Your task to perform on an android device: allow cookies in the chrome app Image 0: 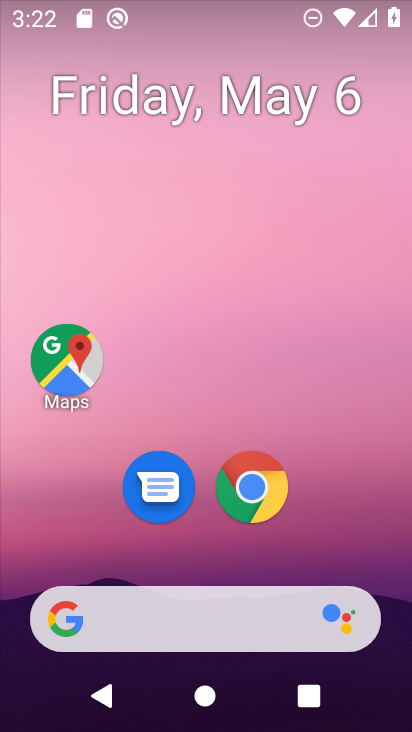
Step 0: click (249, 470)
Your task to perform on an android device: allow cookies in the chrome app Image 1: 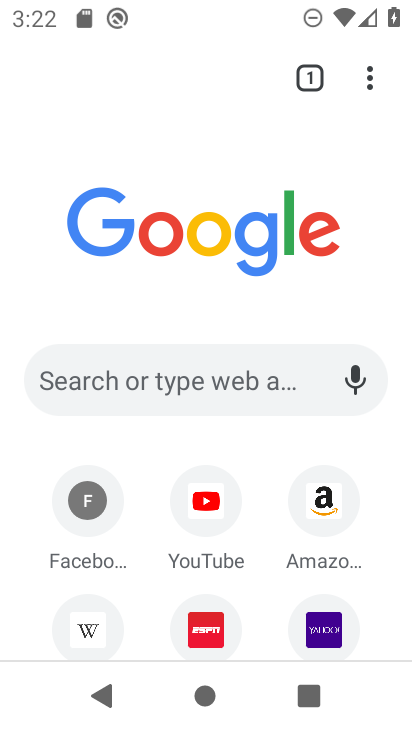
Step 1: click (367, 79)
Your task to perform on an android device: allow cookies in the chrome app Image 2: 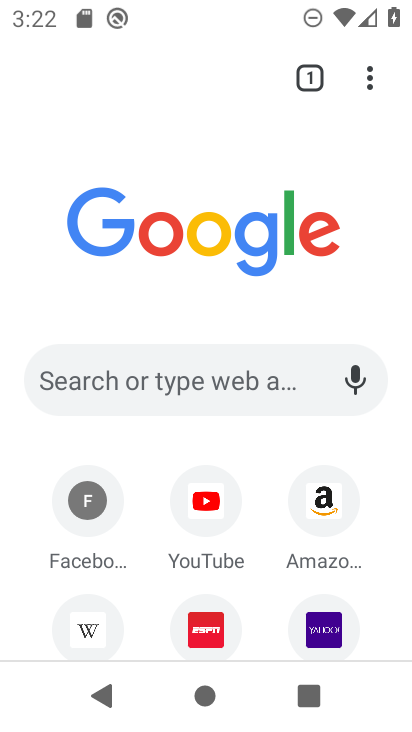
Step 2: click (367, 79)
Your task to perform on an android device: allow cookies in the chrome app Image 3: 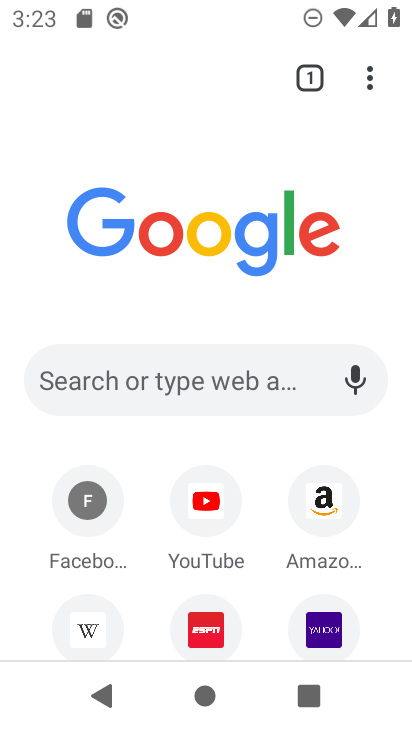
Step 3: click (367, 79)
Your task to perform on an android device: allow cookies in the chrome app Image 4: 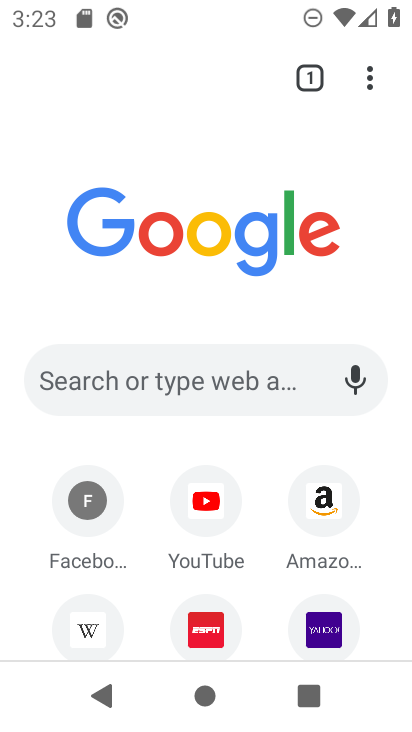
Step 4: click (367, 79)
Your task to perform on an android device: allow cookies in the chrome app Image 5: 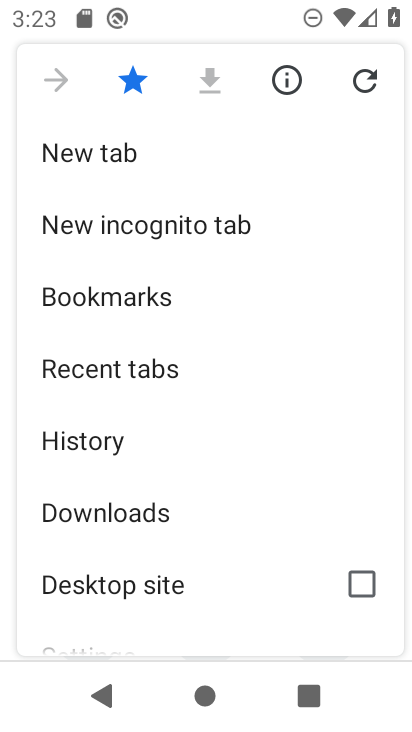
Step 5: drag from (222, 526) to (248, 293)
Your task to perform on an android device: allow cookies in the chrome app Image 6: 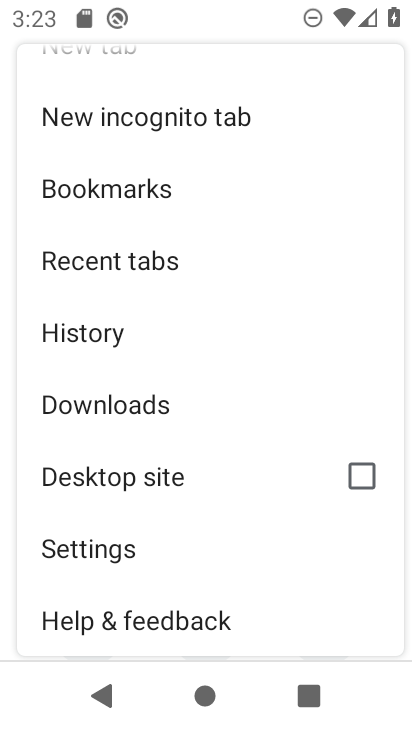
Step 6: click (118, 548)
Your task to perform on an android device: allow cookies in the chrome app Image 7: 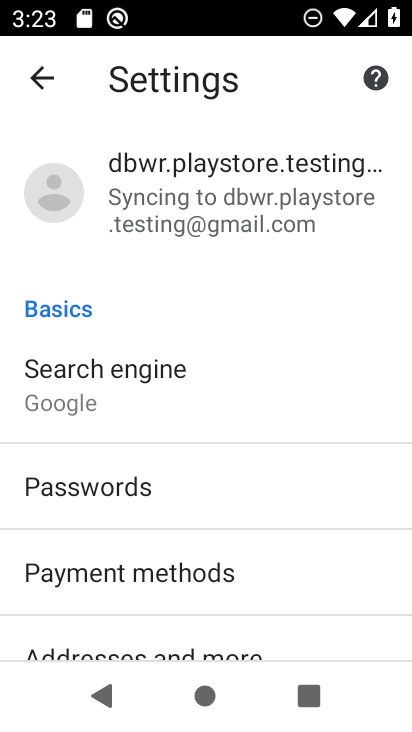
Step 7: drag from (196, 620) to (253, 396)
Your task to perform on an android device: allow cookies in the chrome app Image 8: 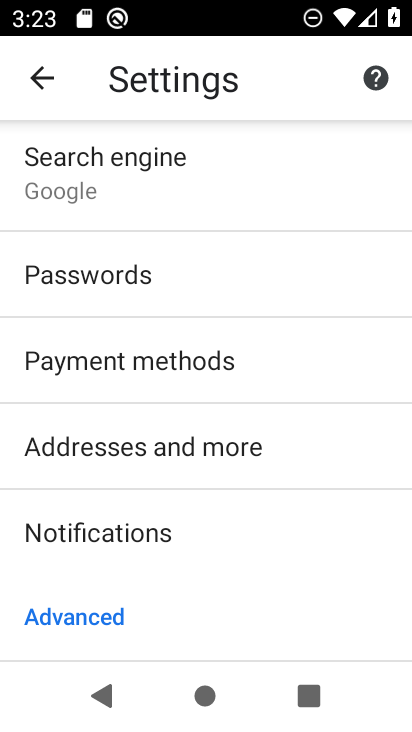
Step 8: drag from (223, 609) to (282, 356)
Your task to perform on an android device: allow cookies in the chrome app Image 9: 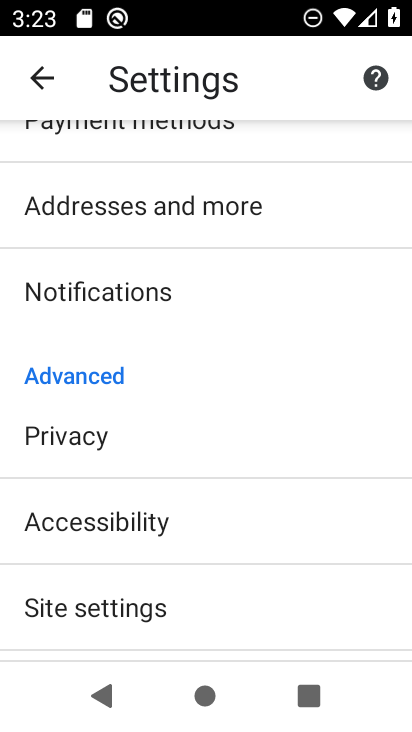
Step 9: drag from (167, 599) to (175, 339)
Your task to perform on an android device: allow cookies in the chrome app Image 10: 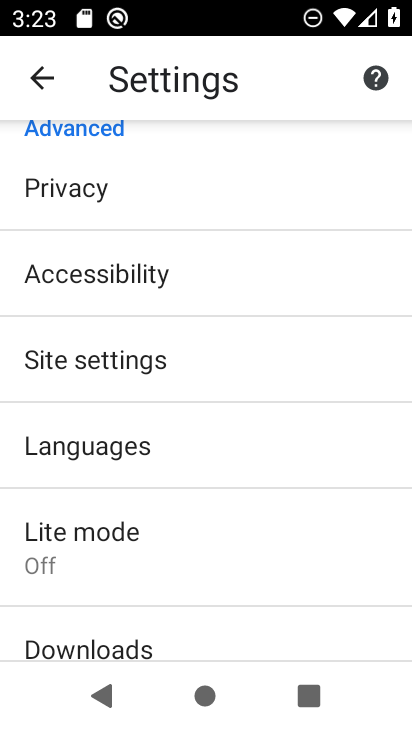
Step 10: click (131, 375)
Your task to perform on an android device: allow cookies in the chrome app Image 11: 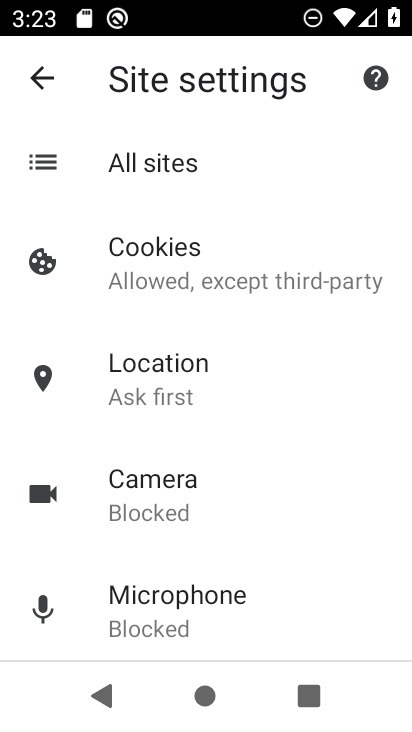
Step 11: click (168, 259)
Your task to perform on an android device: allow cookies in the chrome app Image 12: 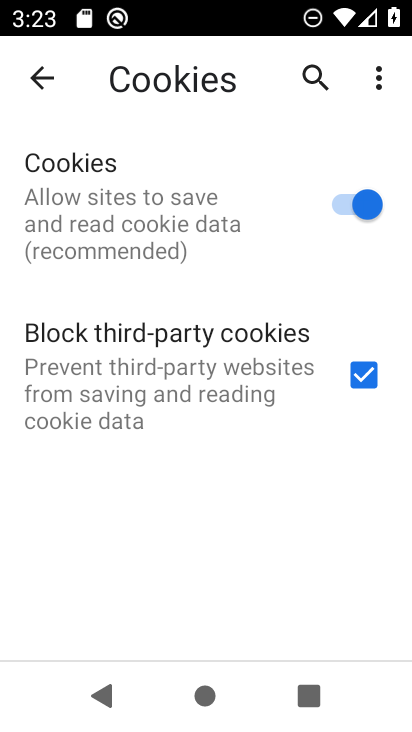
Step 12: task complete